Your task to perform on an android device: Open the web browser Image 0: 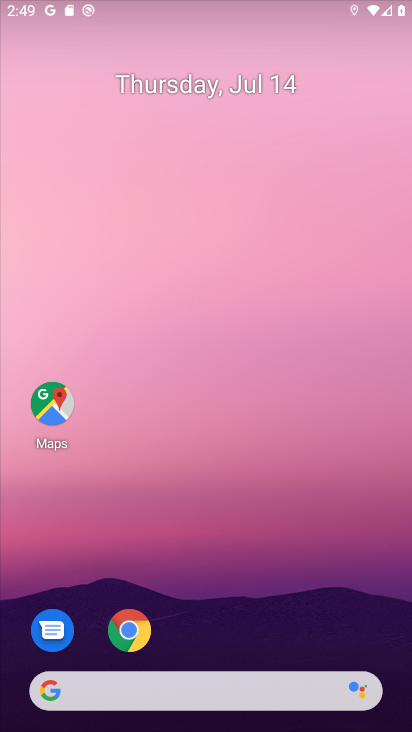
Step 0: drag from (228, 634) to (124, 107)
Your task to perform on an android device: Open the web browser Image 1: 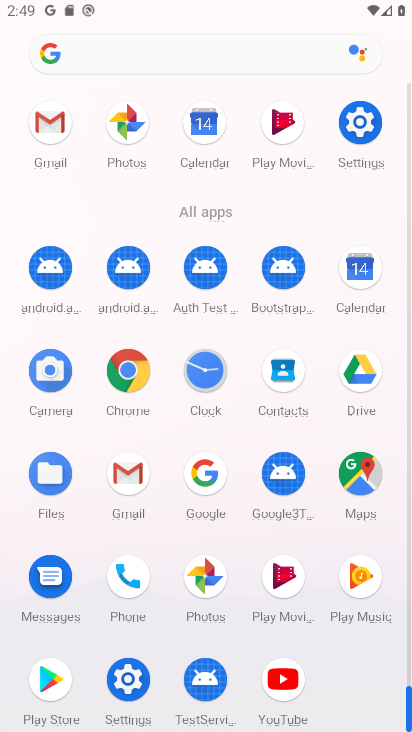
Step 1: click (117, 367)
Your task to perform on an android device: Open the web browser Image 2: 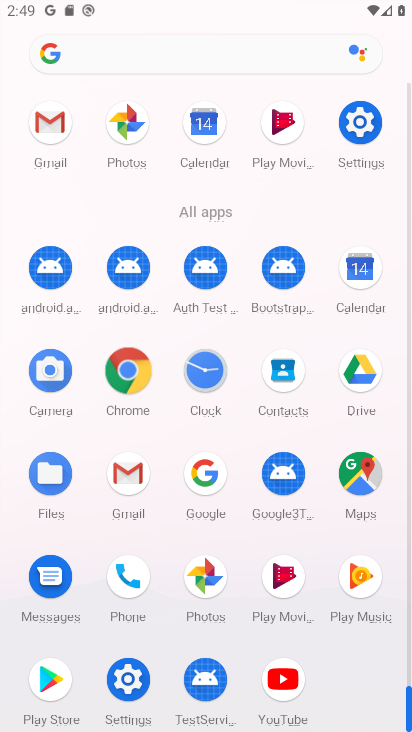
Step 2: click (118, 367)
Your task to perform on an android device: Open the web browser Image 3: 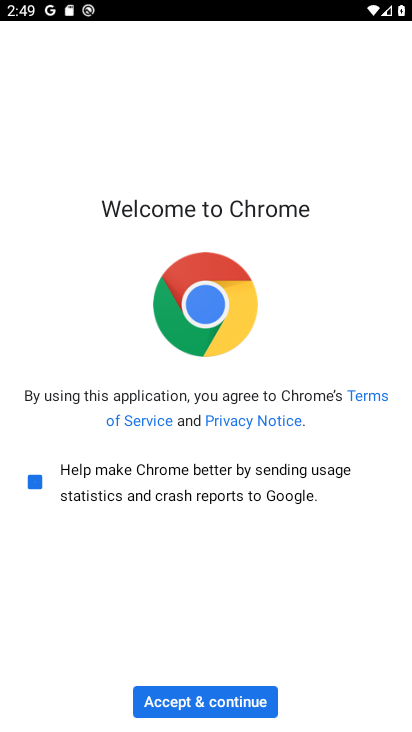
Step 3: click (126, 379)
Your task to perform on an android device: Open the web browser Image 4: 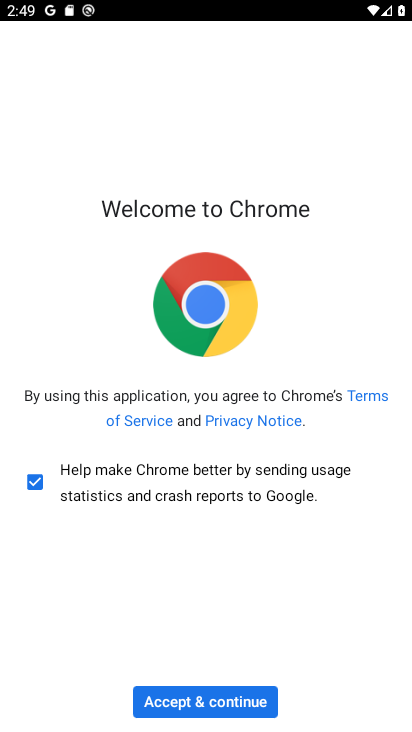
Step 4: click (202, 713)
Your task to perform on an android device: Open the web browser Image 5: 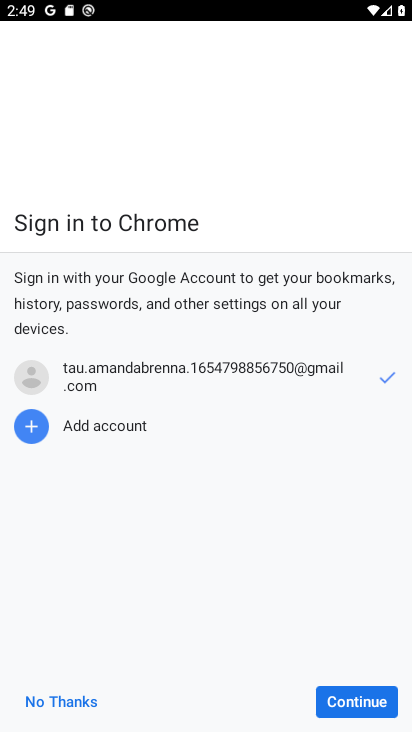
Step 5: click (201, 701)
Your task to perform on an android device: Open the web browser Image 6: 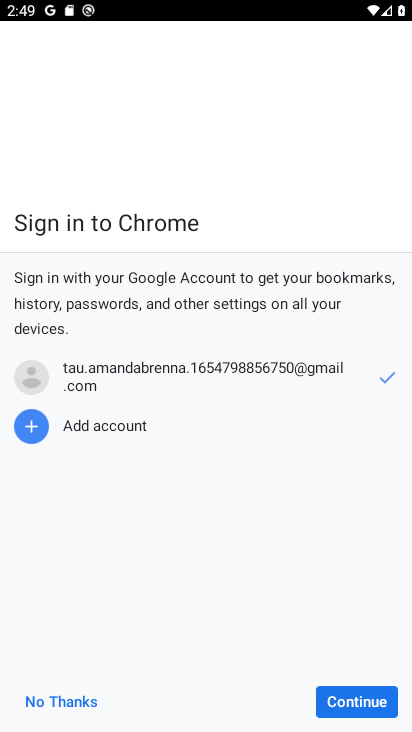
Step 6: click (386, 695)
Your task to perform on an android device: Open the web browser Image 7: 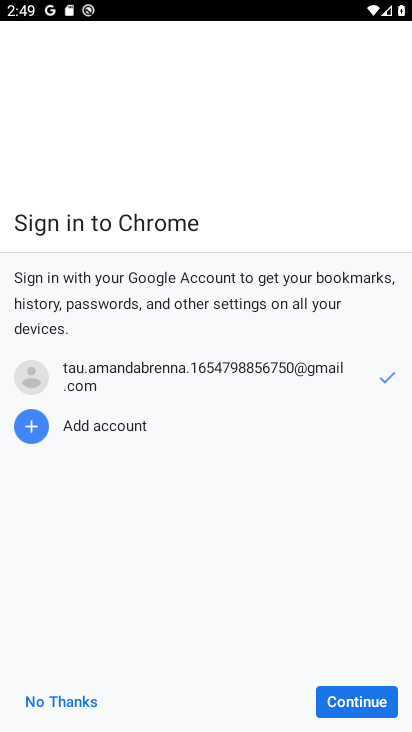
Step 7: click (384, 696)
Your task to perform on an android device: Open the web browser Image 8: 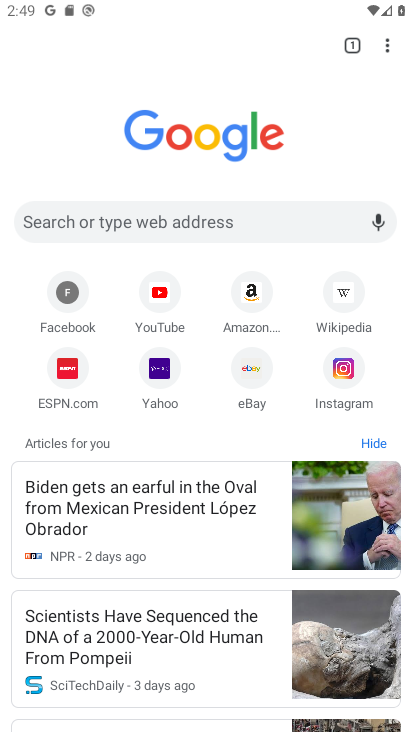
Step 8: task complete